Your task to perform on an android device: Open network settings Image 0: 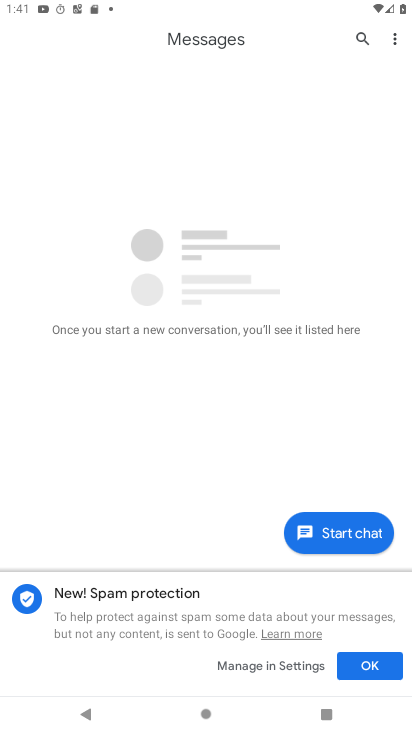
Step 0: press home button
Your task to perform on an android device: Open network settings Image 1: 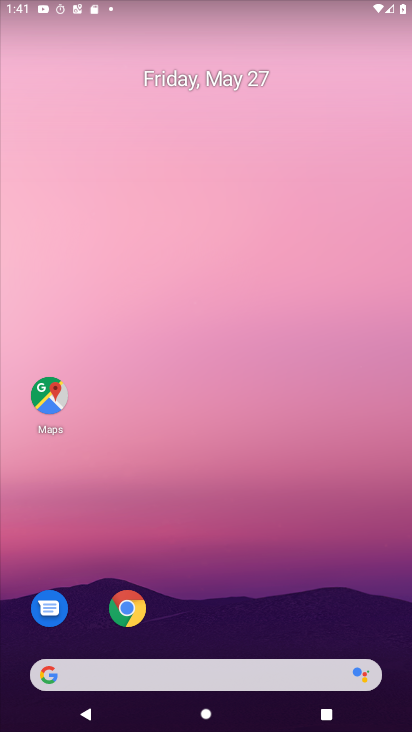
Step 1: drag from (393, 643) to (392, 283)
Your task to perform on an android device: Open network settings Image 2: 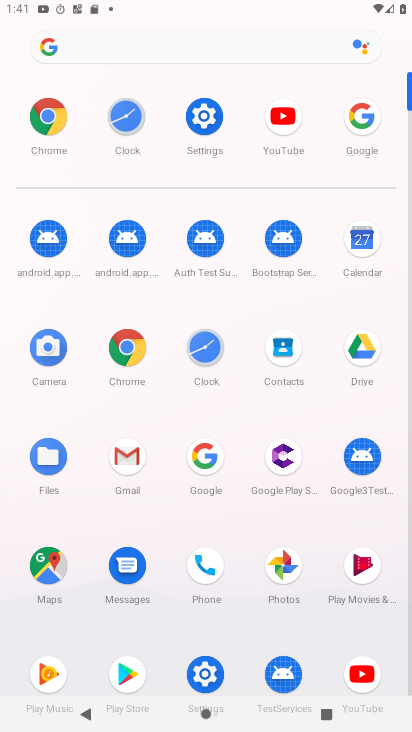
Step 2: click (199, 103)
Your task to perform on an android device: Open network settings Image 3: 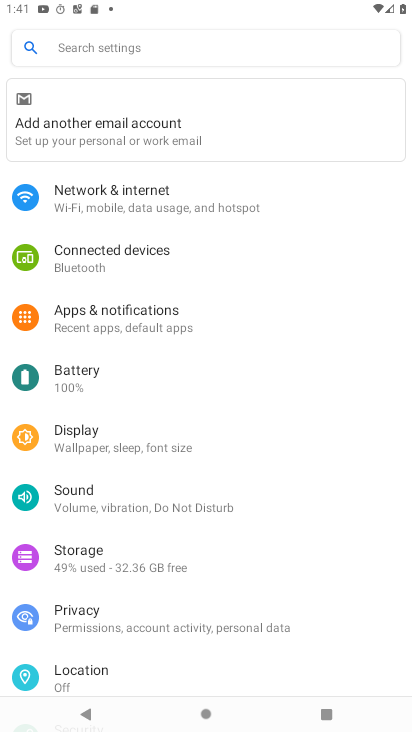
Step 3: click (116, 207)
Your task to perform on an android device: Open network settings Image 4: 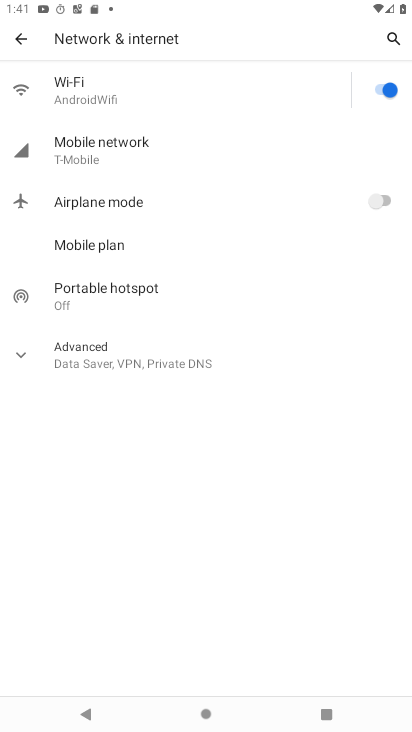
Step 4: click (110, 152)
Your task to perform on an android device: Open network settings Image 5: 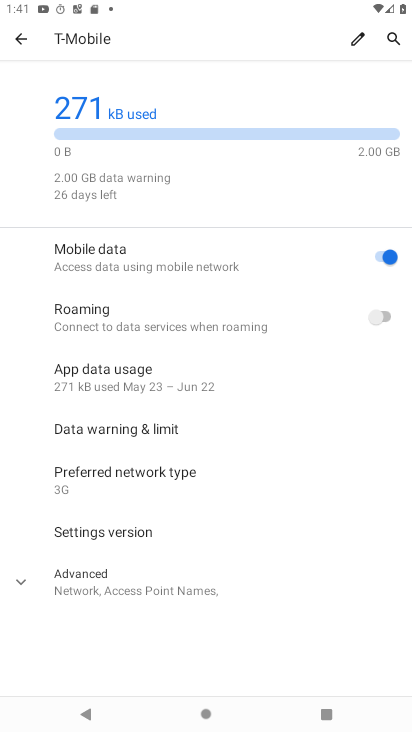
Step 5: task complete